Your task to perform on an android device: check storage Image 0: 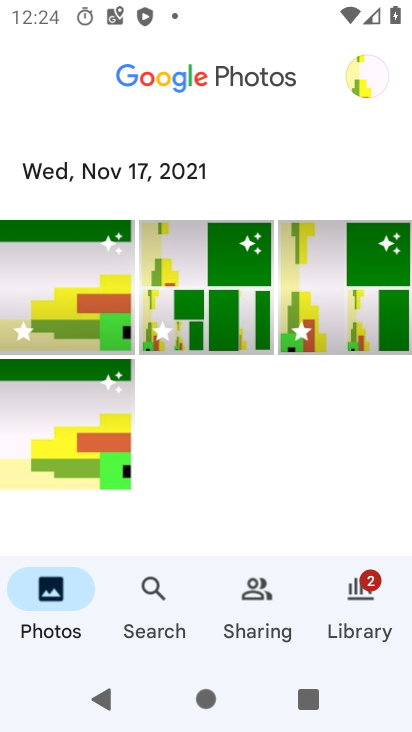
Step 0: press home button
Your task to perform on an android device: check storage Image 1: 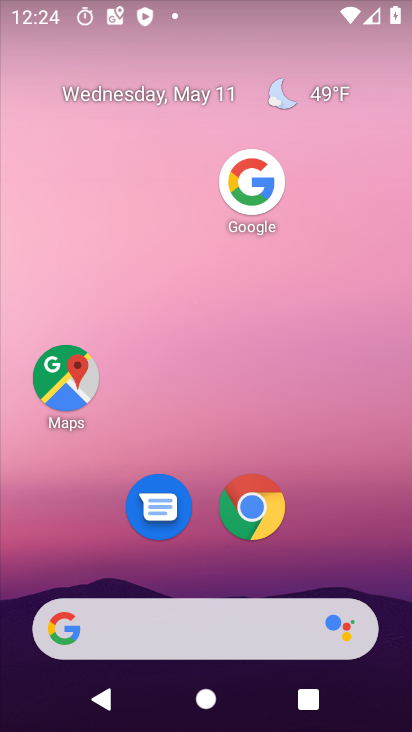
Step 1: drag from (211, 567) to (215, 94)
Your task to perform on an android device: check storage Image 2: 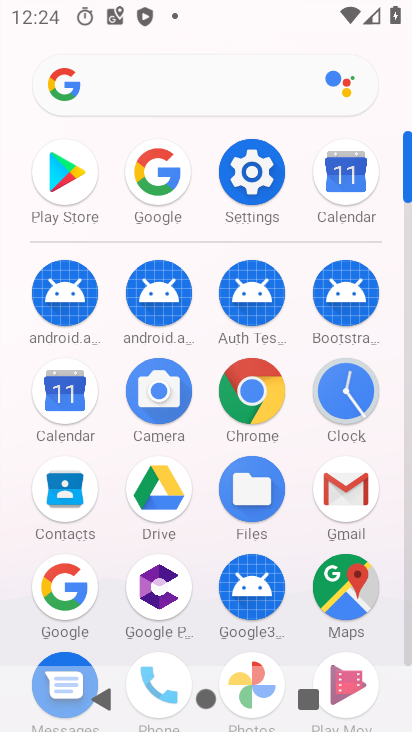
Step 2: click (254, 159)
Your task to perform on an android device: check storage Image 3: 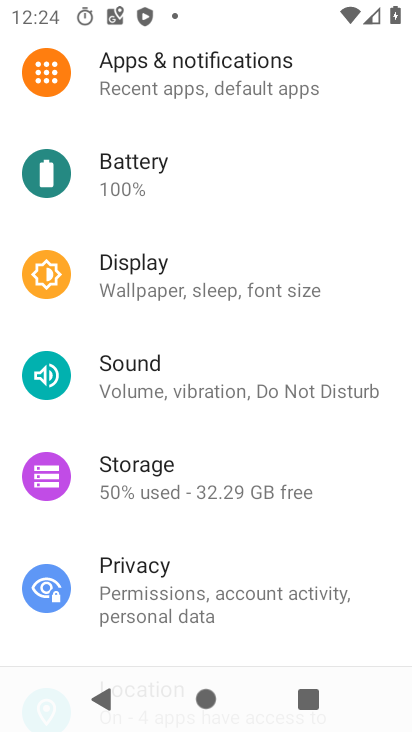
Step 3: click (160, 482)
Your task to perform on an android device: check storage Image 4: 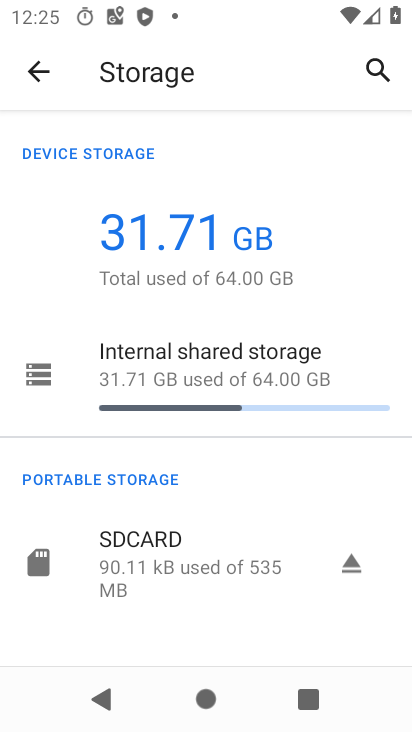
Step 4: task complete